Your task to perform on an android device: see creations saved in the google photos Image 0: 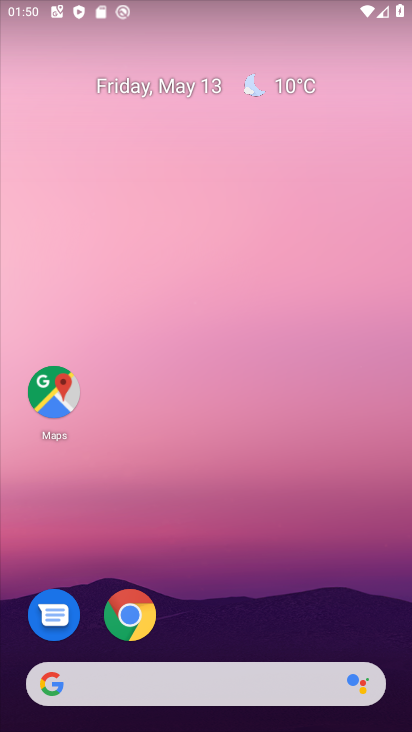
Step 0: click (315, 11)
Your task to perform on an android device: see creations saved in the google photos Image 1: 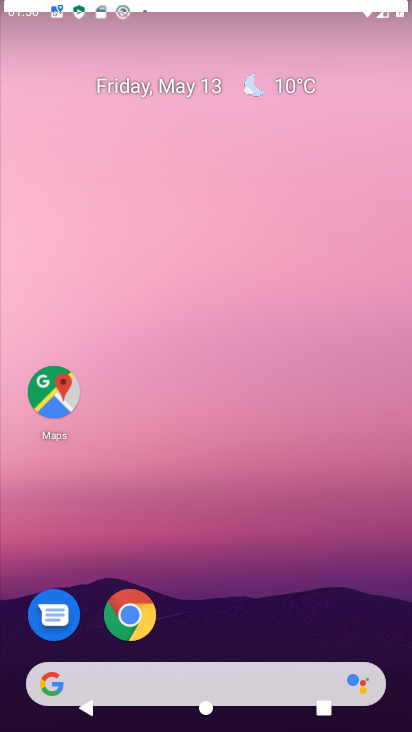
Step 1: drag from (214, 615) to (111, 120)
Your task to perform on an android device: see creations saved in the google photos Image 2: 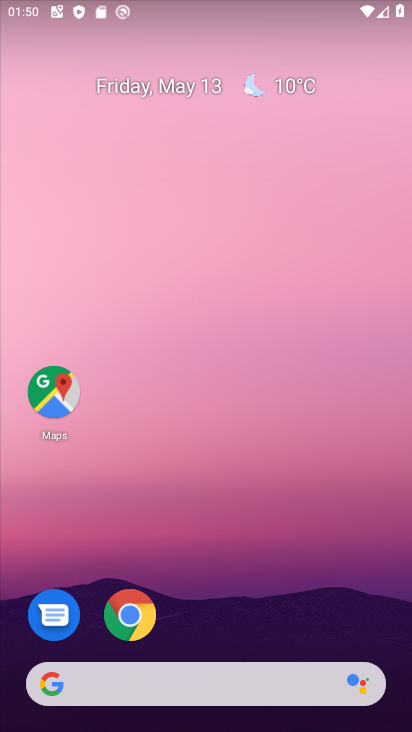
Step 2: drag from (218, 589) to (130, 78)
Your task to perform on an android device: see creations saved in the google photos Image 3: 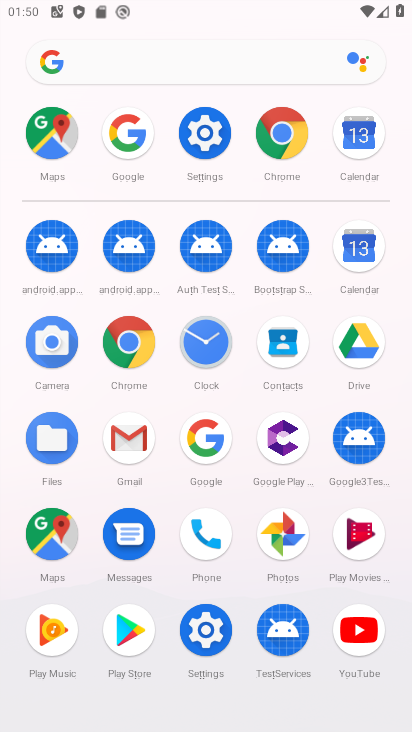
Step 3: click (268, 541)
Your task to perform on an android device: see creations saved in the google photos Image 4: 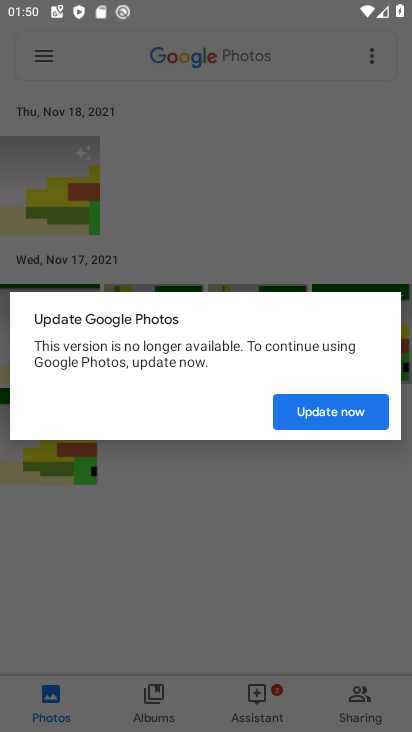
Step 4: click (356, 412)
Your task to perform on an android device: see creations saved in the google photos Image 5: 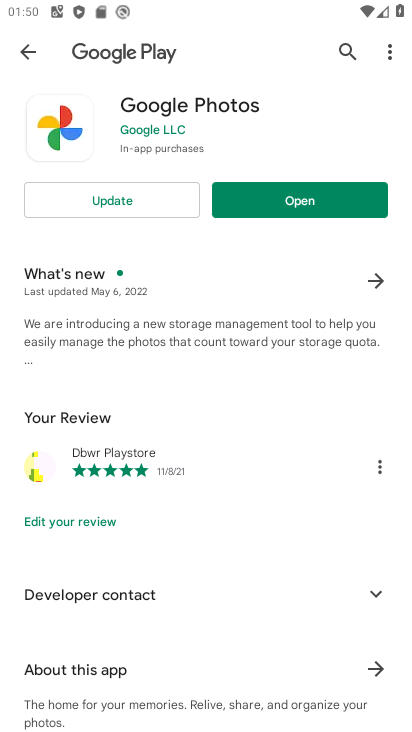
Step 5: press back button
Your task to perform on an android device: see creations saved in the google photos Image 6: 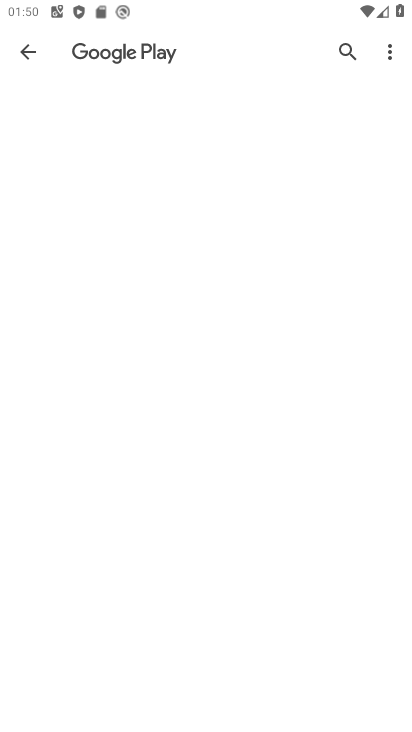
Step 6: press back button
Your task to perform on an android device: see creations saved in the google photos Image 7: 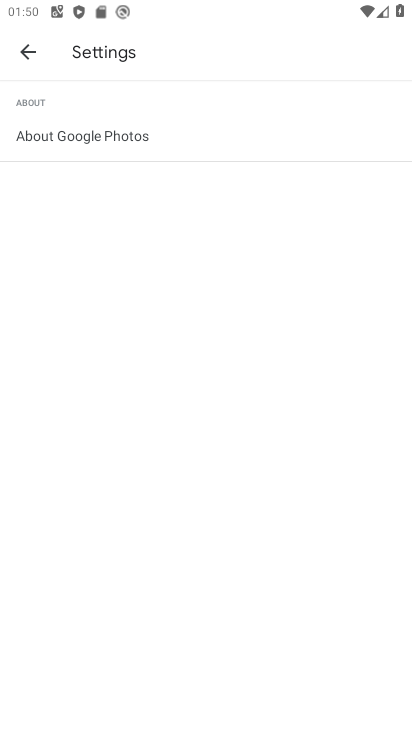
Step 7: press back button
Your task to perform on an android device: see creations saved in the google photos Image 8: 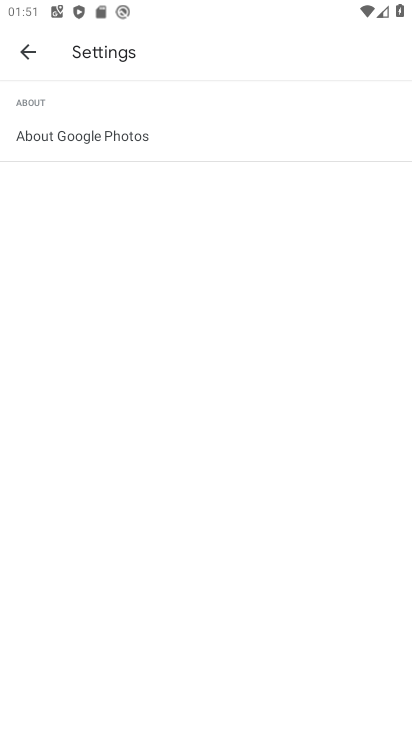
Step 8: click (29, 51)
Your task to perform on an android device: see creations saved in the google photos Image 9: 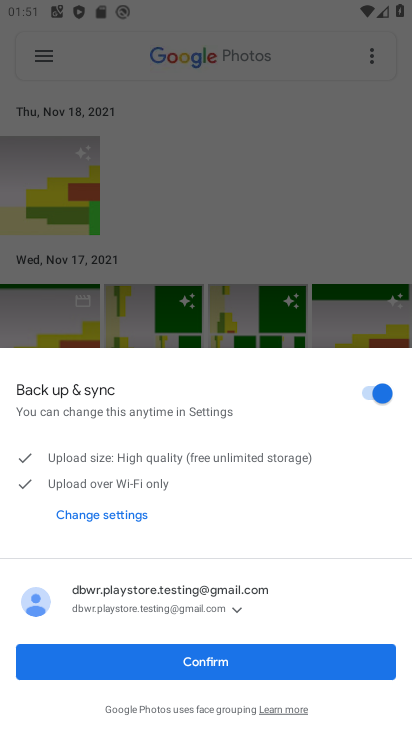
Step 9: click (246, 673)
Your task to perform on an android device: see creations saved in the google photos Image 10: 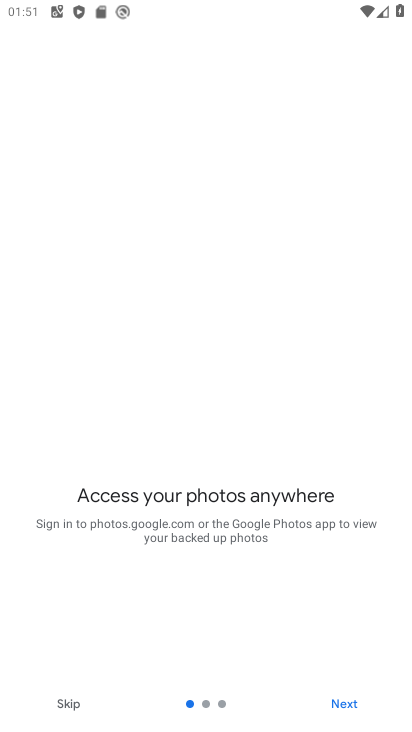
Step 10: click (358, 702)
Your task to perform on an android device: see creations saved in the google photos Image 11: 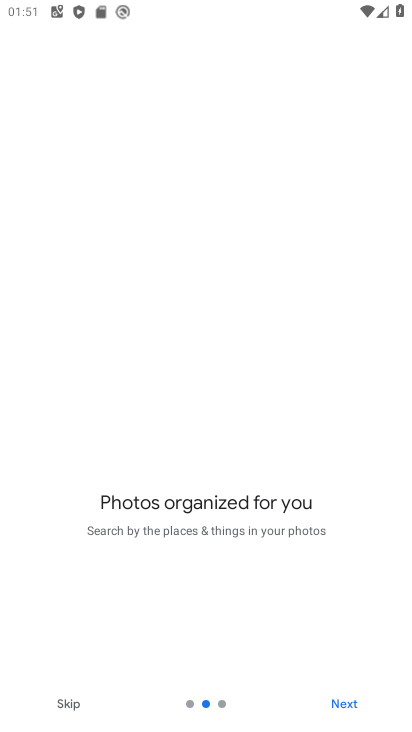
Step 11: click (346, 703)
Your task to perform on an android device: see creations saved in the google photos Image 12: 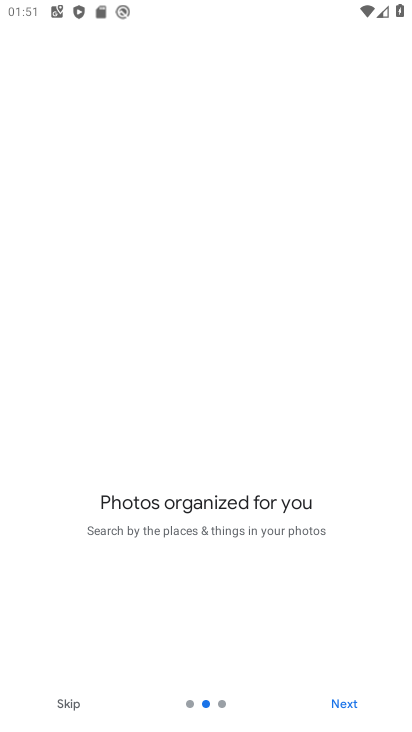
Step 12: click (346, 703)
Your task to perform on an android device: see creations saved in the google photos Image 13: 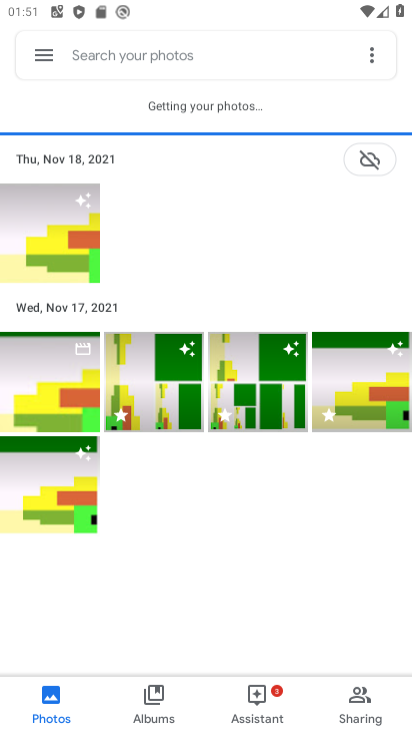
Step 13: click (346, 703)
Your task to perform on an android device: see creations saved in the google photos Image 14: 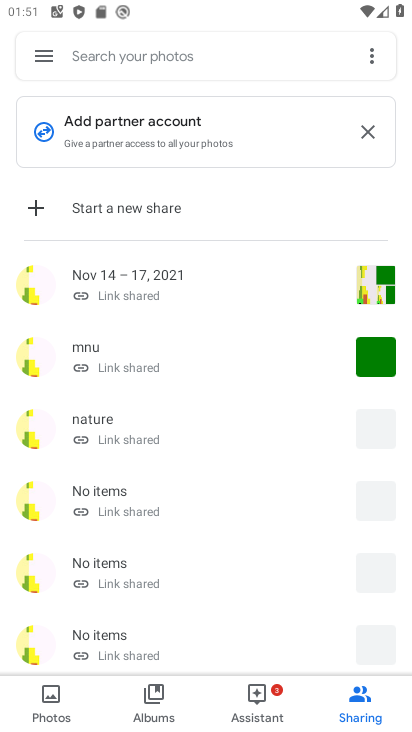
Step 14: click (120, 61)
Your task to perform on an android device: see creations saved in the google photos Image 15: 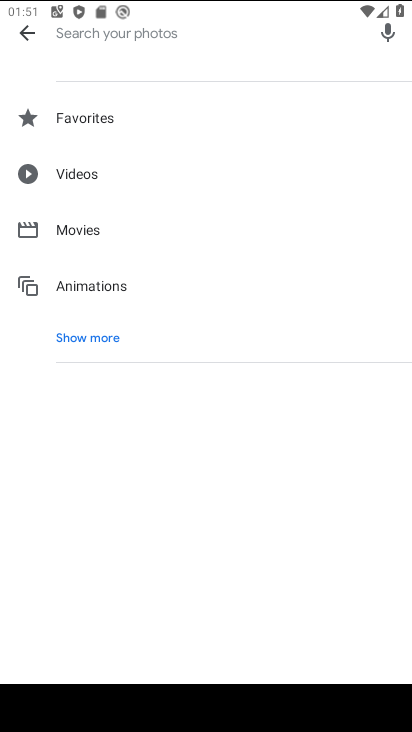
Step 15: click (70, 332)
Your task to perform on an android device: see creations saved in the google photos Image 16: 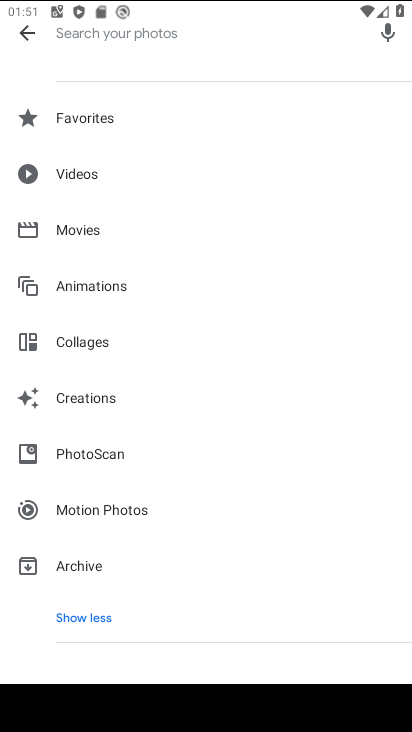
Step 16: click (65, 386)
Your task to perform on an android device: see creations saved in the google photos Image 17: 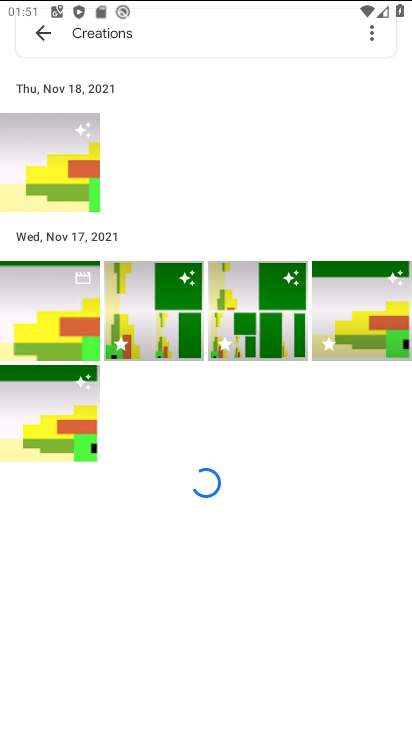
Step 17: click (144, 554)
Your task to perform on an android device: see creations saved in the google photos Image 18: 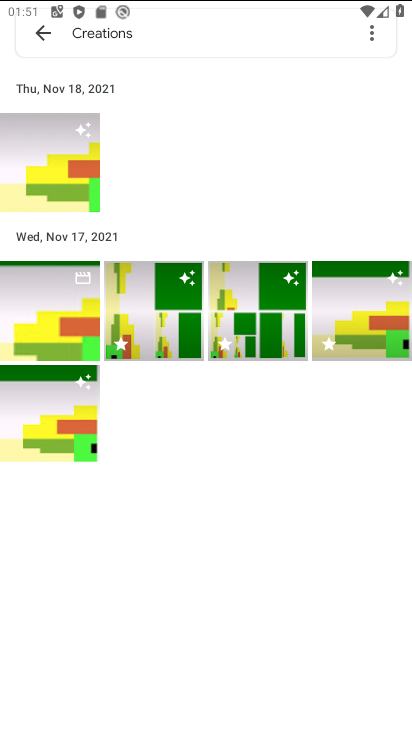
Step 18: task complete